Your task to perform on an android device: turn off data saver in the chrome app Image 0: 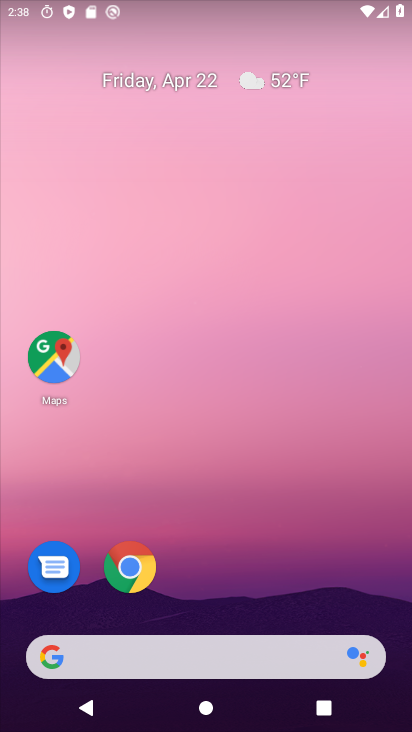
Step 0: click (136, 570)
Your task to perform on an android device: turn off data saver in the chrome app Image 1: 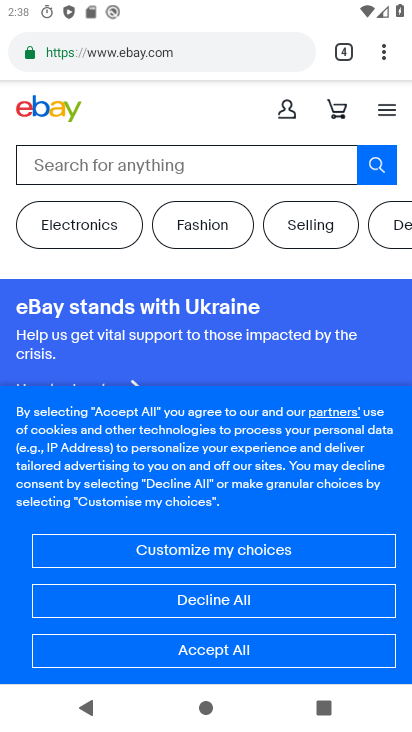
Step 1: click (383, 49)
Your task to perform on an android device: turn off data saver in the chrome app Image 2: 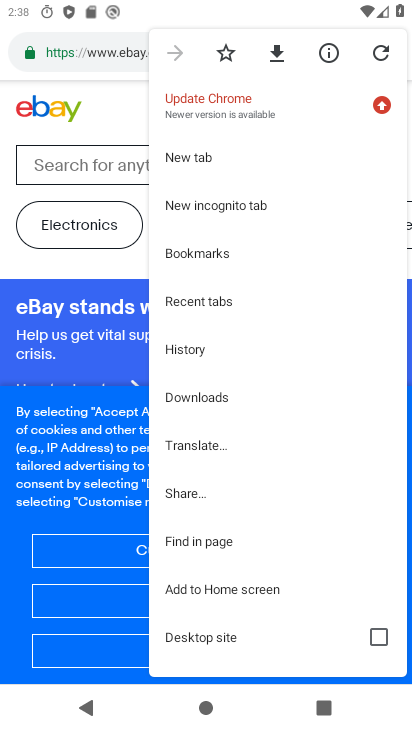
Step 2: drag from (261, 563) to (235, 255)
Your task to perform on an android device: turn off data saver in the chrome app Image 3: 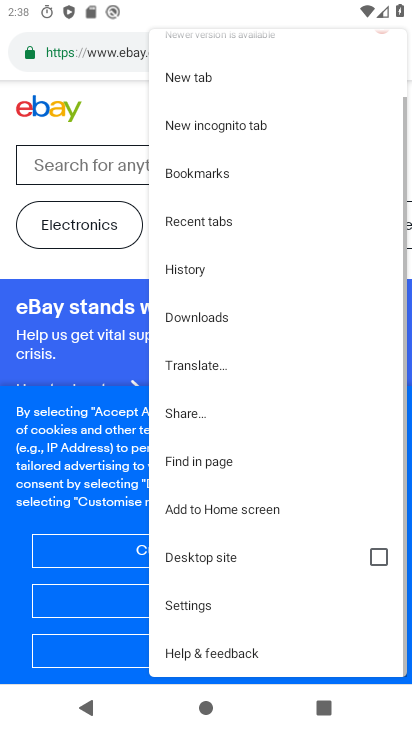
Step 3: click (222, 604)
Your task to perform on an android device: turn off data saver in the chrome app Image 4: 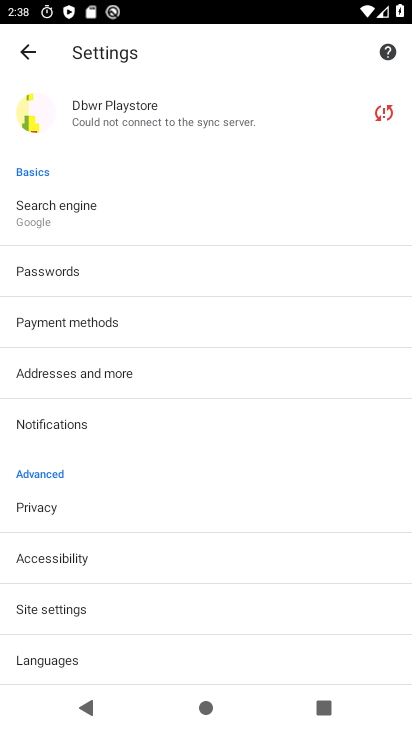
Step 4: drag from (139, 637) to (117, 355)
Your task to perform on an android device: turn off data saver in the chrome app Image 5: 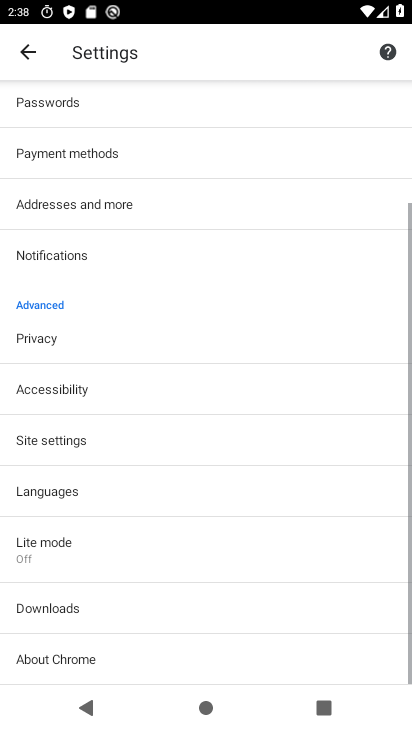
Step 5: click (96, 546)
Your task to perform on an android device: turn off data saver in the chrome app Image 6: 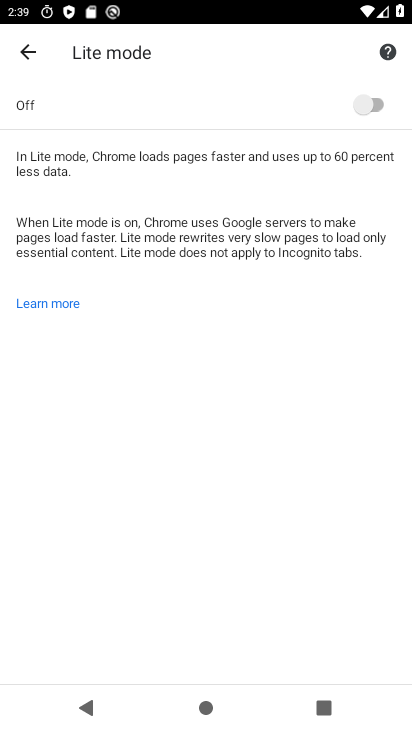
Step 6: task complete